Your task to perform on an android device: turn vacation reply on in the gmail app Image 0: 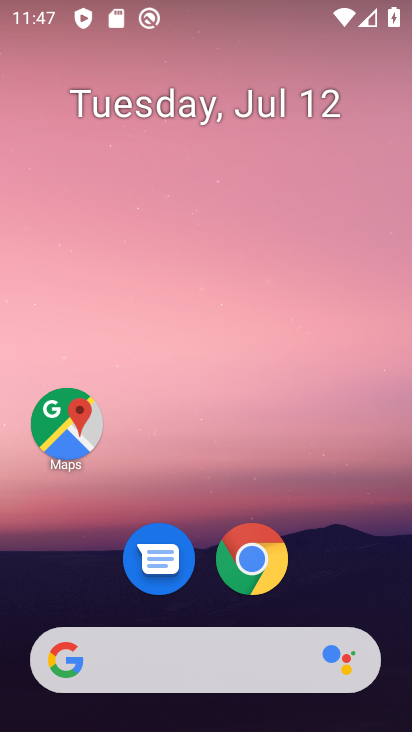
Step 0: drag from (233, 699) to (192, 200)
Your task to perform on an android device: turn vacation reply on in the gmail app Image 1: 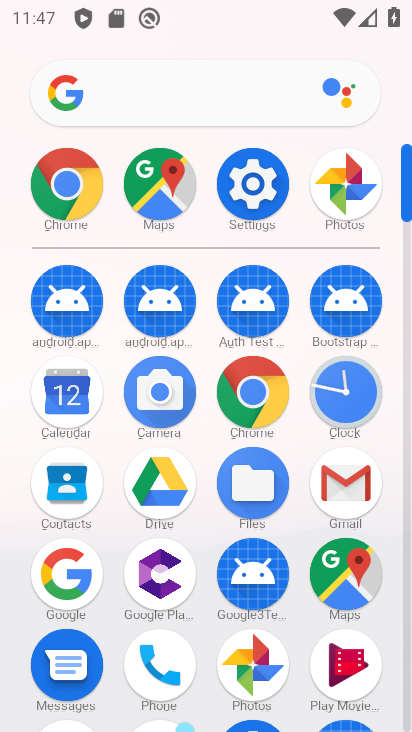
Step 1: drag from (204, 505) to (202, 378)
Your task to perform on an android device: turn vacation reply on in the gmail app Image 2: 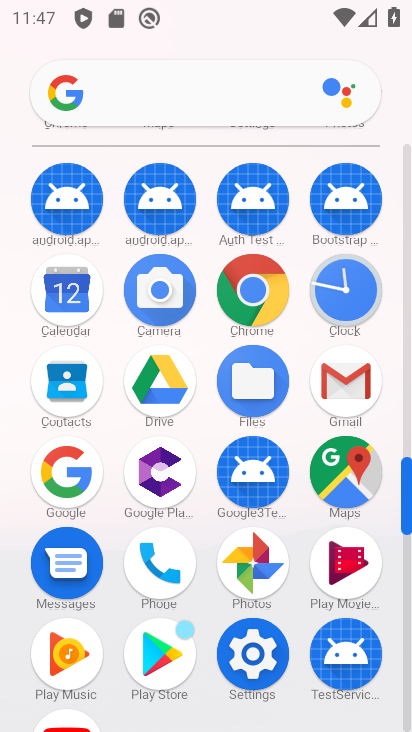
Step 2: click (346, 392)
Your task to perform on an android device: turn vacation reply on in the gmail app Image 3: 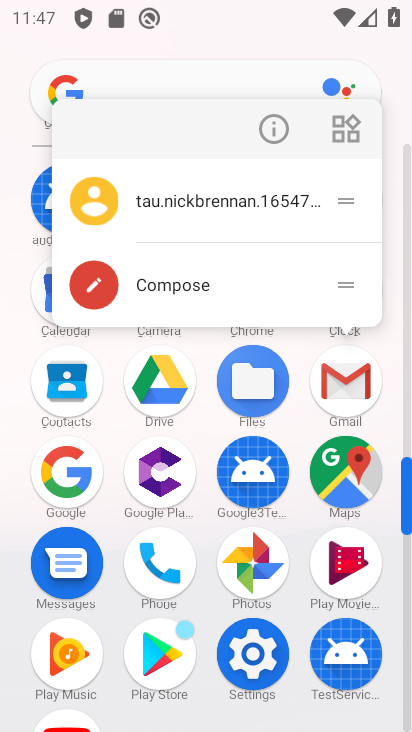
Step 3: click (333, 413)
Your task to perform on an android device: turn vacation reply on in the gmail app Image 4: 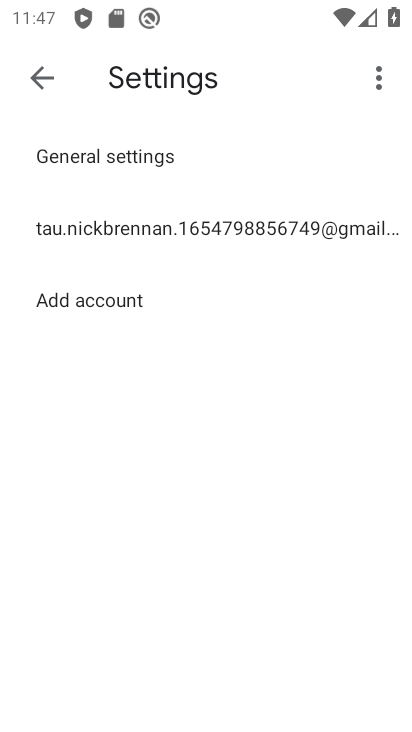
Step 4: click (185, 234)
Your task to perform on an android device: turn vacation reply on in the gmail app Image 5: 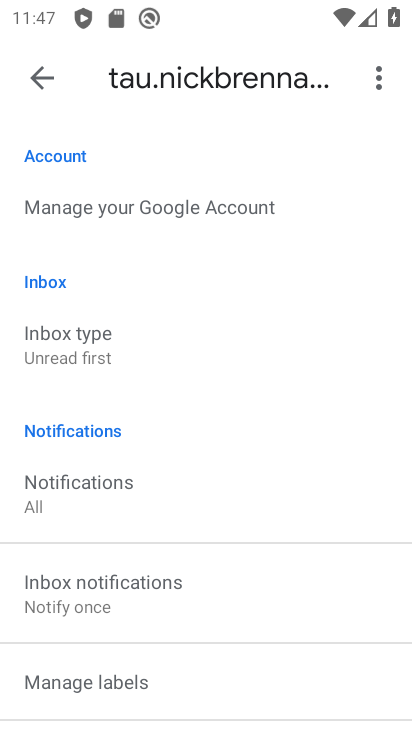
Step 5: drag from (139, 617) to (109, 304)
Your task to perform on an android device: turn vacation reply on in the gmail app Image 6: 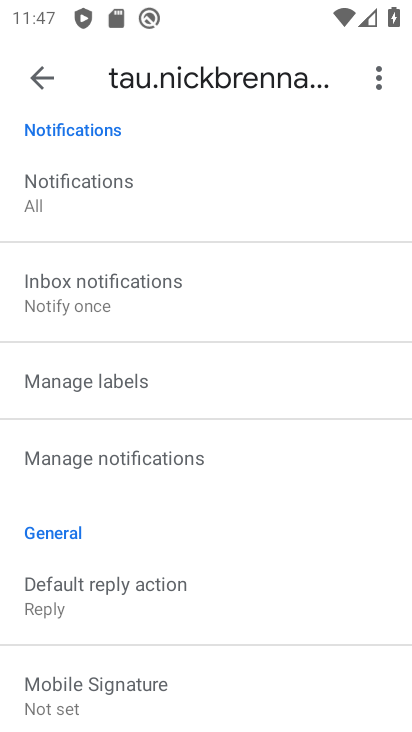
Step 6: drag from (111, 554) to (106, 378)
Your task to perform on an android device: turn vacation reply on in the gmail app Image 7: 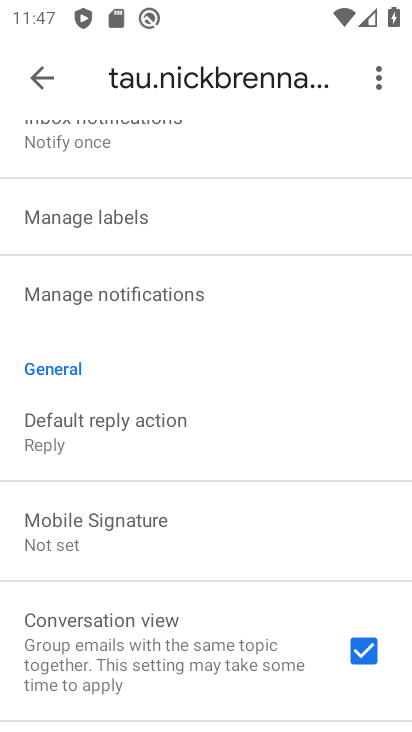
Step 7: drag from (113, 590) to (111, 332)
Your task to perform on an android device: turn vacation reply on in the gmail app Image 8: 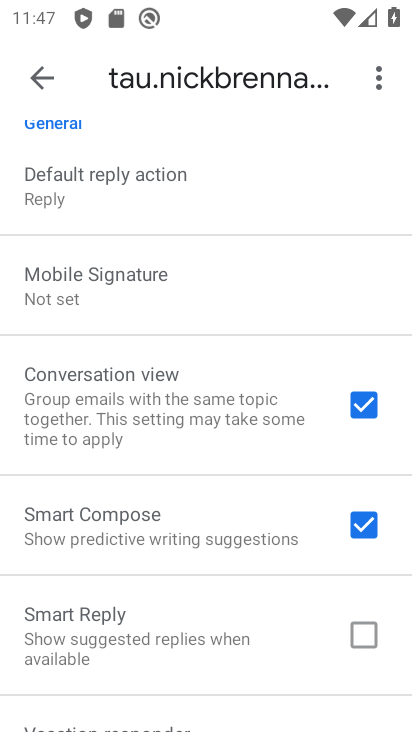
Step 8: drag from (145, 616) to (153, 390)
Your task to perform on an android device: turn vacation reply on in the gmail app Image 9: 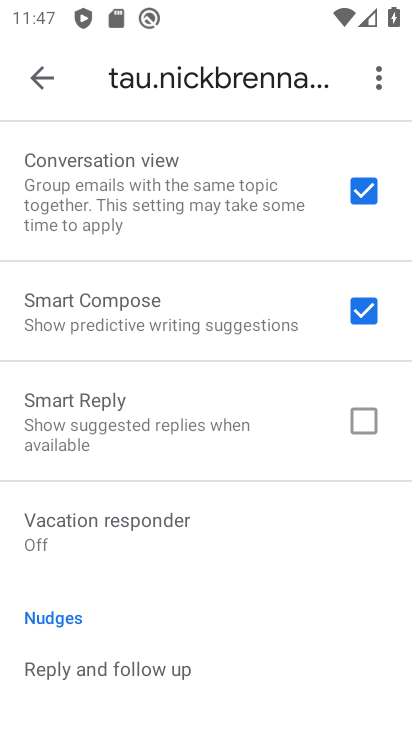
Step 9: click (162, 528)
Your task to perform on an android device: turn vacation reply on in the gmail app Image 10: 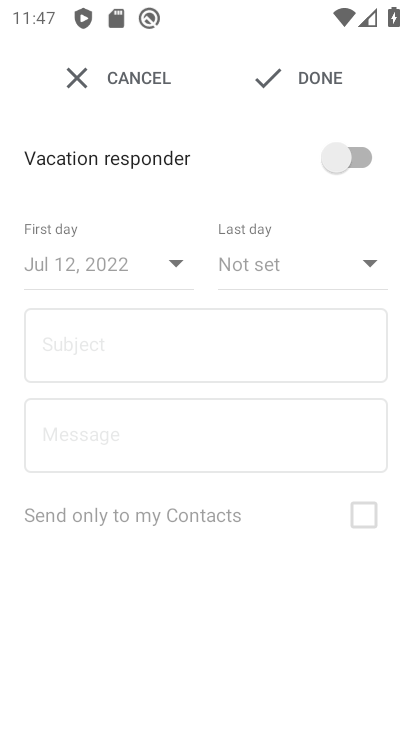
Step 10: click (347, 172)
Your task to perform on an android device: turn vacation reply on in the gmail app Image 11: 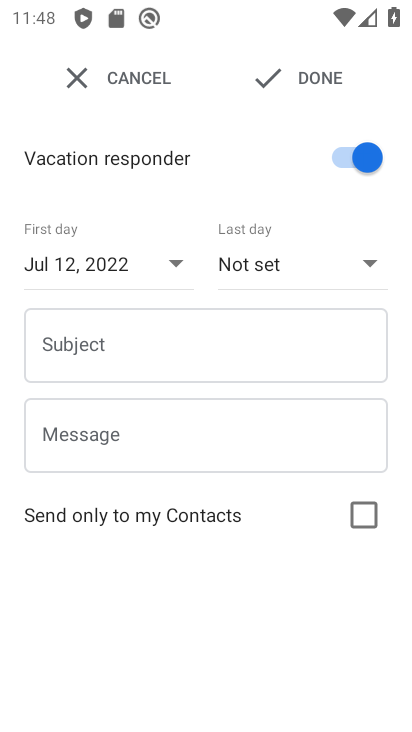
Step 11: task complete